Your task to perform on an android device: turn notification dots on Image 0: 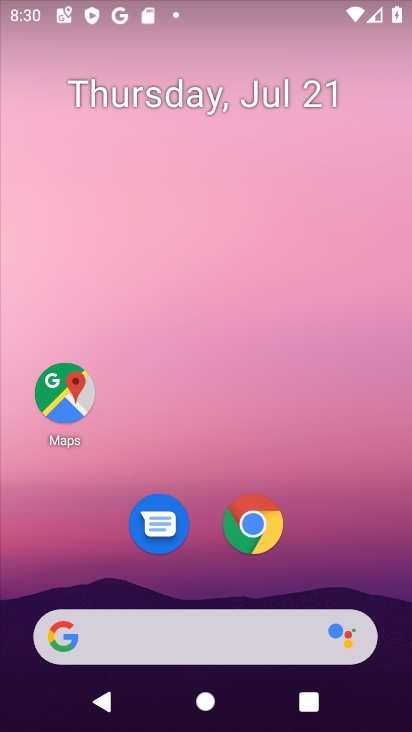
Step 0: press home button
Your task to perform on an android device: turn notification dots on Image 1: 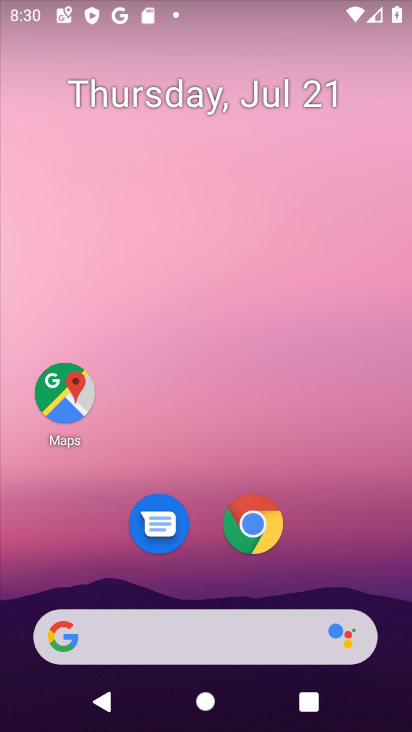
Step 1: drag from (192, 638) to (345, 86)
Your task to perform on an android device: turn notification dots on Image 2: 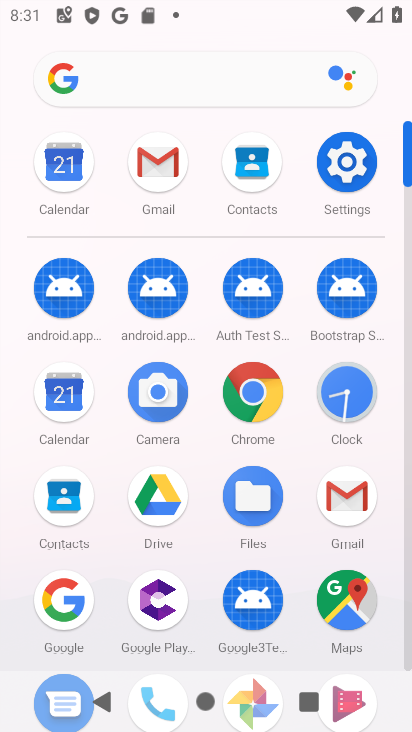
Step 2: click (342, 162)
Your task to perform on an android device: turn notification dots on Image 3: 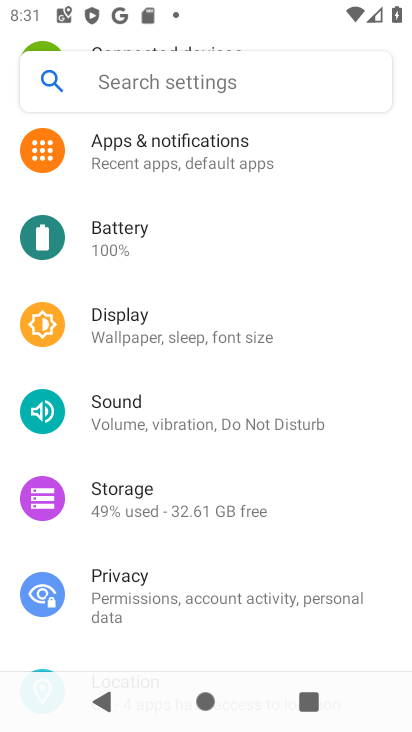
Step 3: click (210, 140)
Your task to perform on an android device: turn notification dots on Image 4: 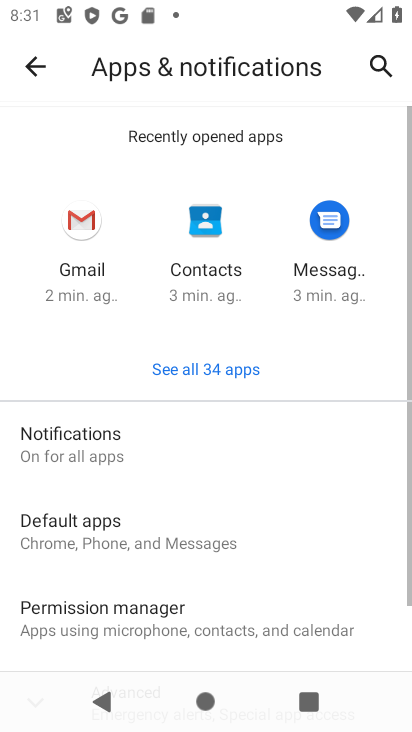
Step 4: click (103, 448)
Your task to perform on an android device: turn notification dots on Image 5: 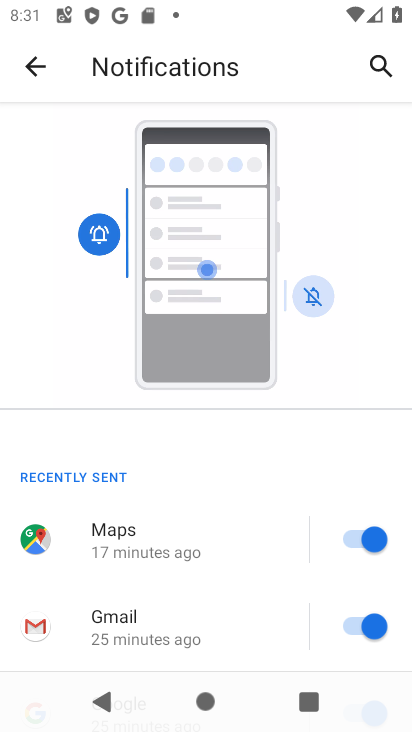
Step 5: drag from (194, 619) to (282, 61)
Your task to perform on an android device: turn notification dots on Image 6: 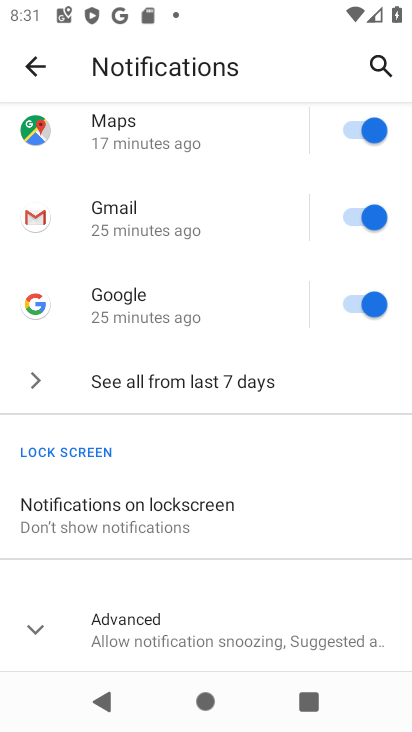
Step 6: click (178, 625)
Your task to perform on an android device: turn notification dots on Image 7: 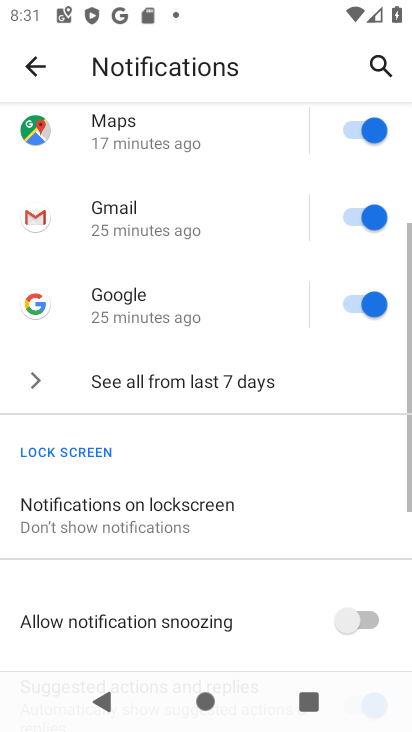
Step 7: drag from (218, 592) to (279, 46)
Your task to perform on an android device: turn notification dots on Image 8: 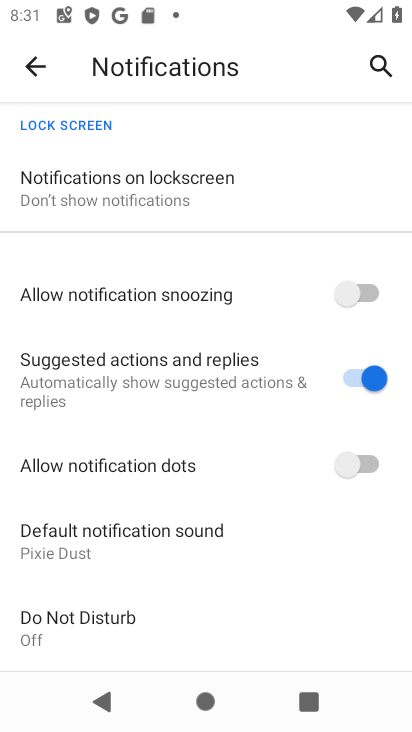
Step 8: click (364, 461)
Your task to perform on an android device: turn notification dots on Image 9: 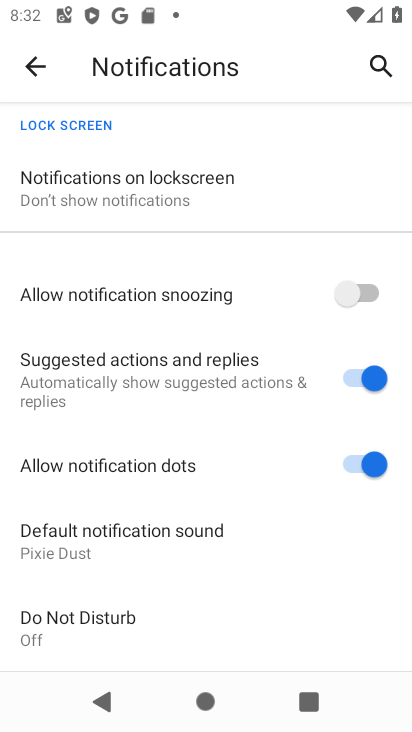
Step 9: task complete